Your task to perform on an android device: What's on the menu at McDonalds? Image 0: 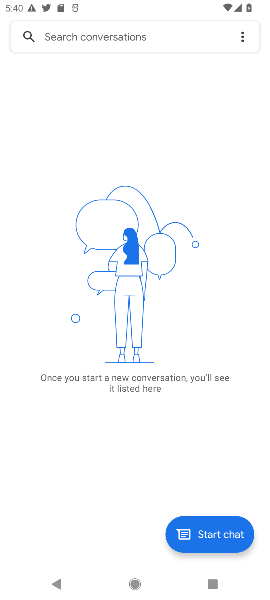
Step 0: press home button
Your task to perform on an android device: What's on the menu at McDonalds? Image 1: 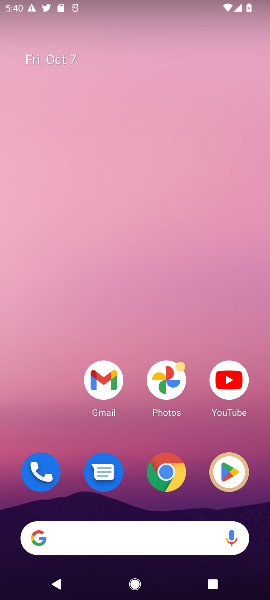
Step 1: click (176, 478)
Your task to perform on an android device: What's on the menu at McDonalds? Image 2: 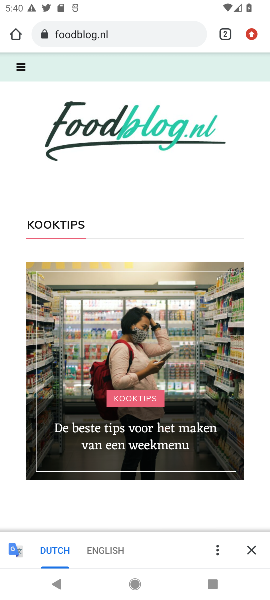
Step 2: click (132, 40)
Your task to perform on an android device: What's on the menu at McDonalds? Image 3: 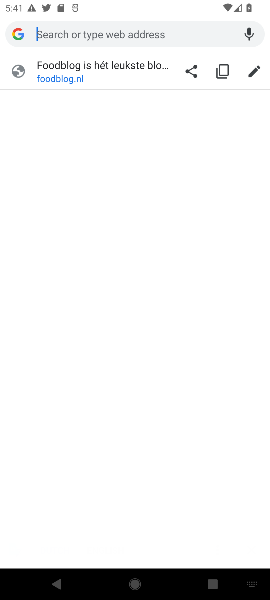
Step 3: type "menu at McDonalds"
Your task to perform on an android device: What's on the menu at McDonalds? Image 4: 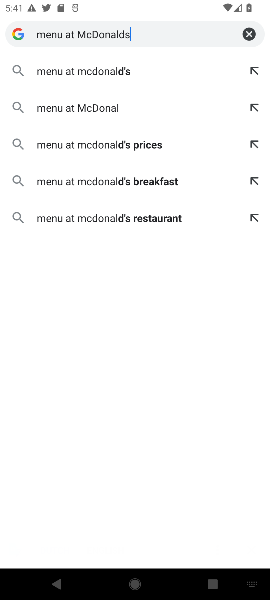
Step 4: press enter
Your task to perform on an android device: What's on the menu at McDonalds? Image 5: 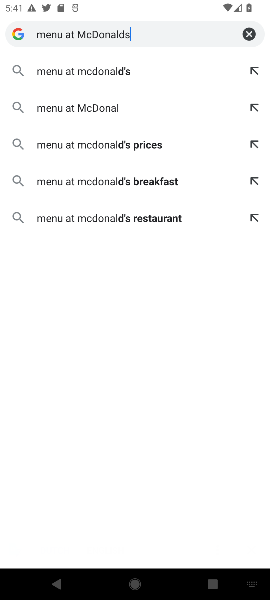
Step 5: type ""
Your task to perform on an android device: What's on the menu at McDonalds? Image 6: 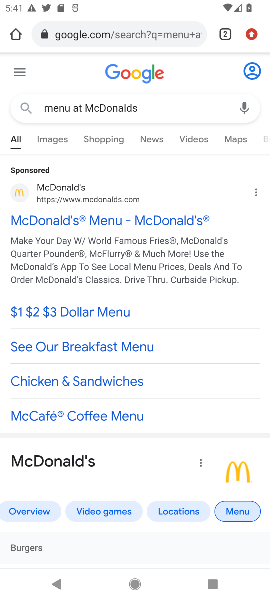
Step 6: click (178, 223)
Your task to perform on an android device: What's on the menu at McDonalds? Image 7: 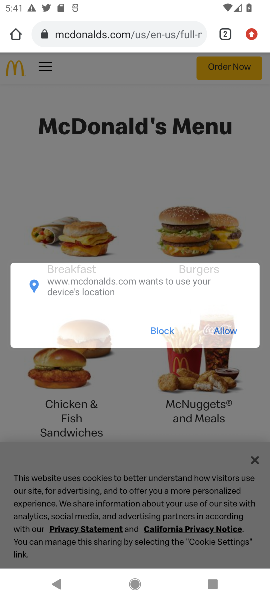
Step 7: drag from (152, 314) to (156, 153)
Your task to perform on an android device: What's on the menu at McDonalds? Image 8: 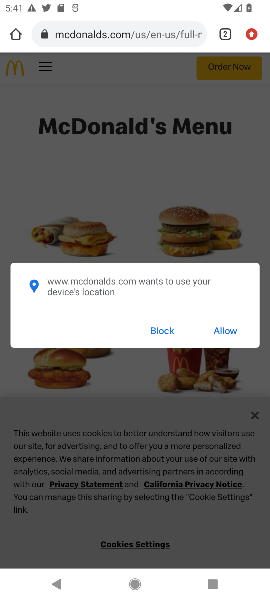
Step 8: click (228, 332)
Your task to perform on an android device: What's on the menu at McDonalds? Image 9: 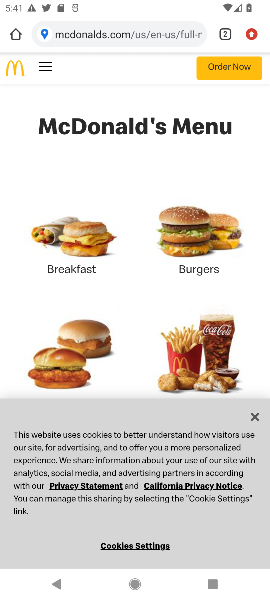
Step 9: task complete